Your task to perform on an android device: Open the phone app and click the voicemail tab. Image 0: 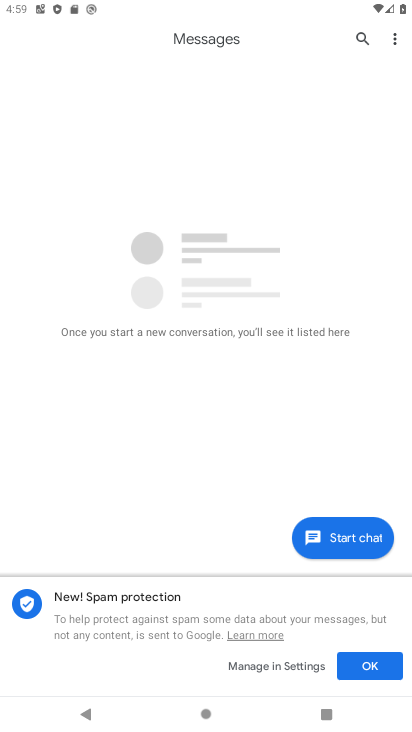
Step 0: press home button
Your task to perform on an android device: Open the phone app and click the voicemail tab. Image 1: 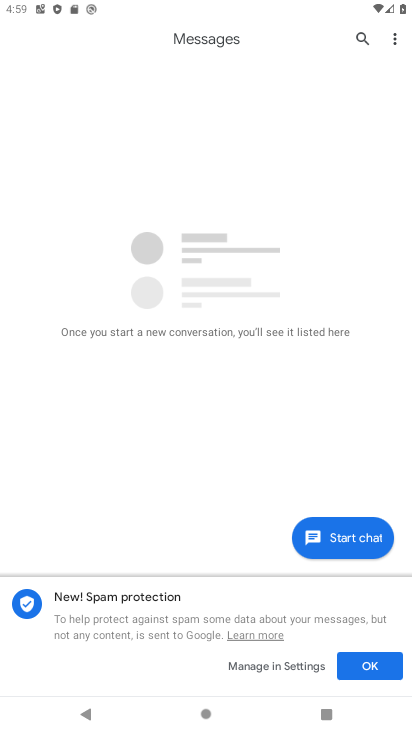
Step 1: press home button
Your task to perform on an android device: Open the phone app and click the voicemail tab. Image 2: 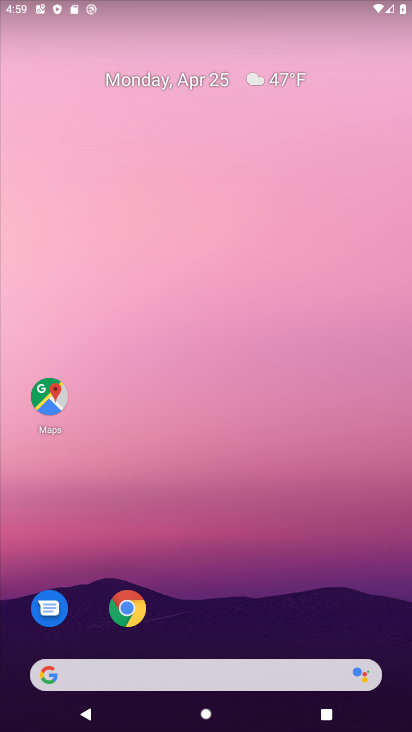
Step 2: drag from (213, 639) to (172, 17)
Your task to perform on an android device: Open the phone app and click the voicemail tab. Image 3: 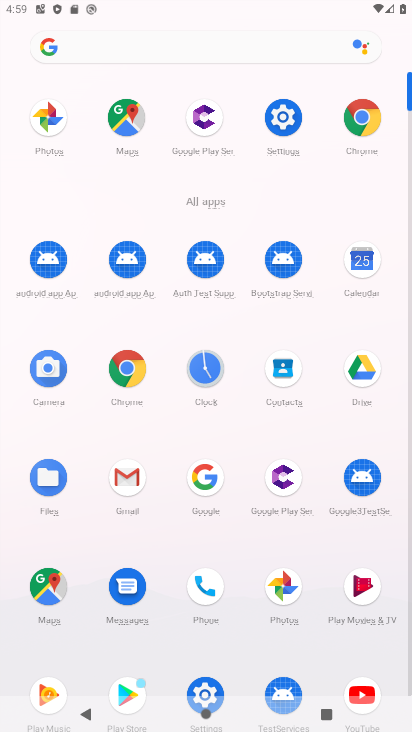
Step 3: click (209, 588)
Your task to perform on an android device: Open the phone app and click the voicemail tab. Image 4: 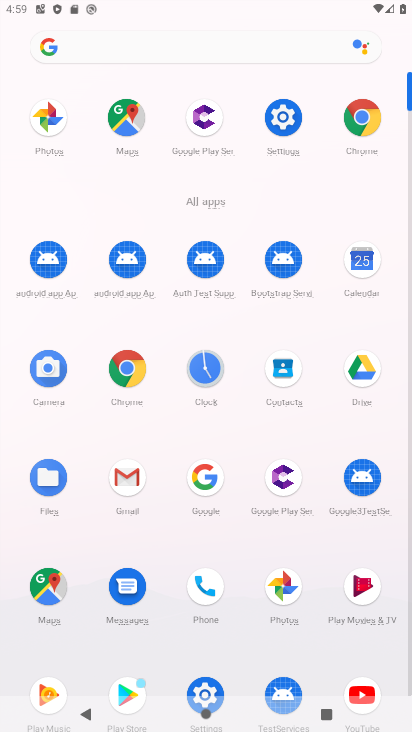
Step 4: click (201, 599)
Your task to perform on an android device: Open the phone app and click the voicemail tab. Image 5: 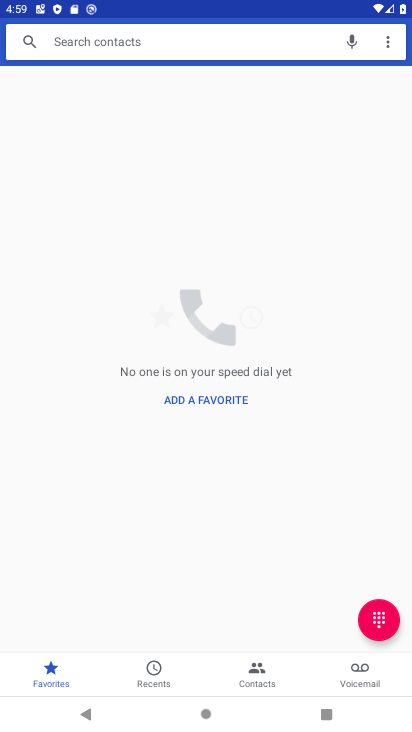
Step 5: drag from (206, 569) to (226, 275)
Your task to perform on an android device: Open the phone app and click the voicemail tab. Image 6: 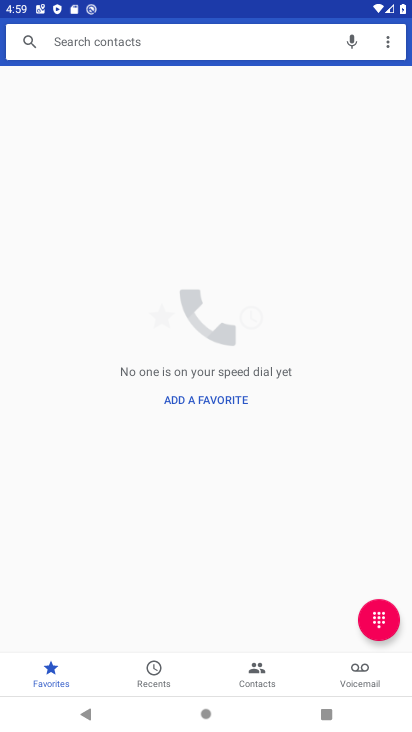
Step 6: click (365, 670)
Your task to perform on an android device: Open the phone app and click the voicemail tab. Image 7: 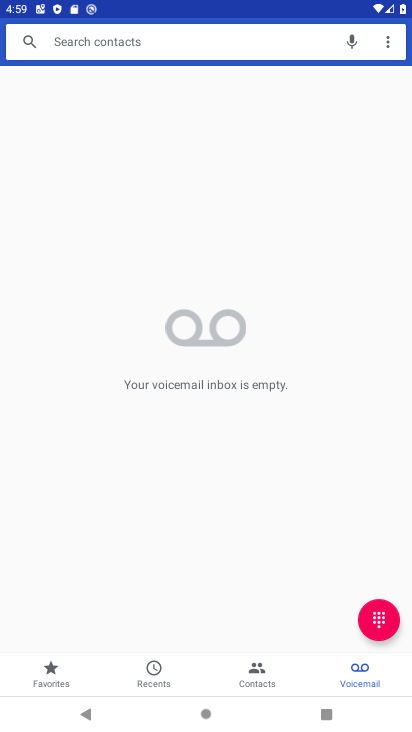
Step 7: click (361, 670)
Your task to perform on an android device: Open the phone app and click the voicemail tab. Image 8: 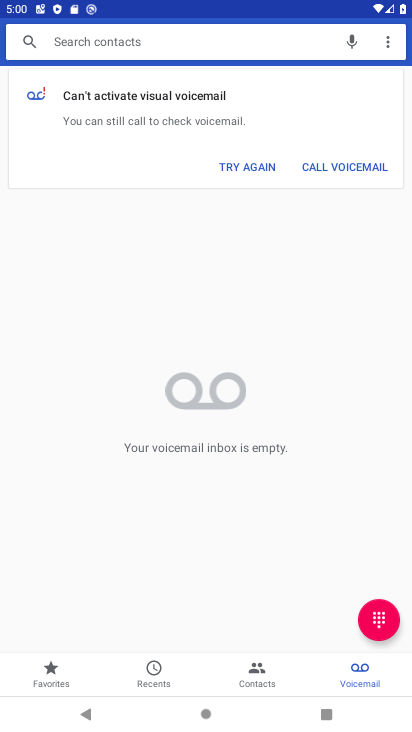
Step 8: click (361, 668)
Your task to perform on an android device: Open the phone app and click the voicemail tab. Image 9: 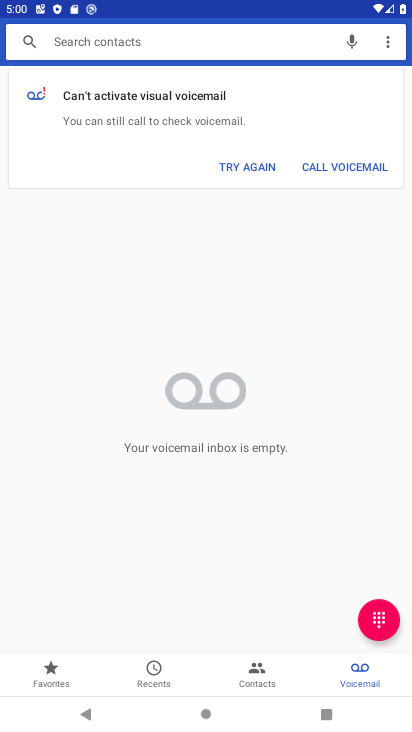
Step 9: click (362, 667)
Your task to perform on an android device: Open the phone app and click the voicemail tab. Image 10: 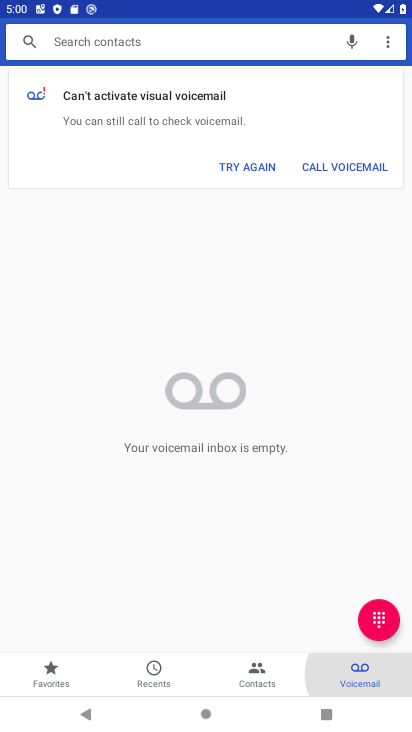
Step 10: click (362, 667)
Your task to perform on an android device: Open the phone app and click the voicemail tab. Image 11: 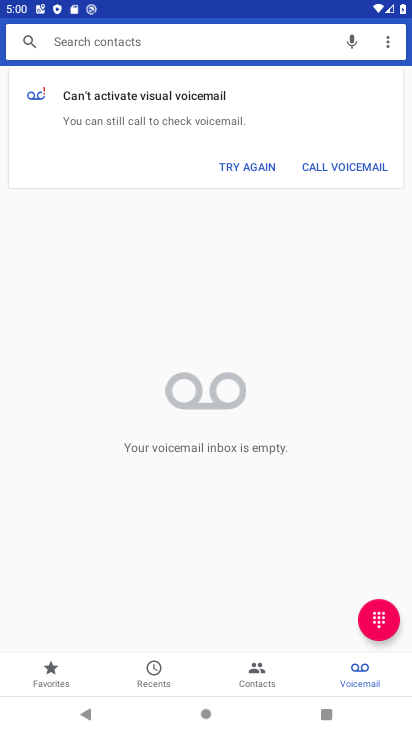
Step 11: task complete